Your task to perform on an android device: When is my next appointment? Image 0: 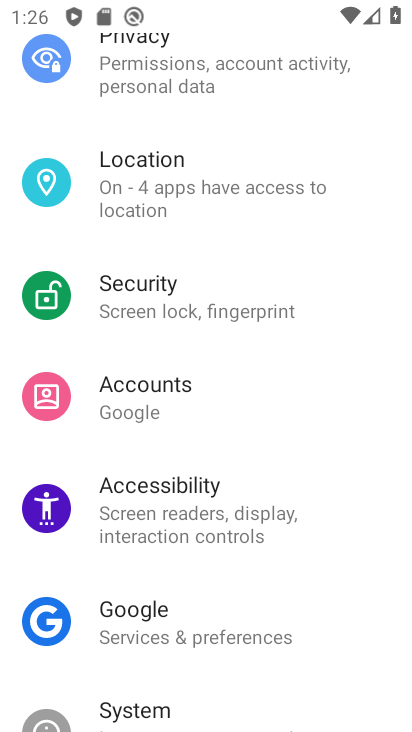
Step 0: press home button
Your task to perform on an android device: When is my next appointment? Image 1: 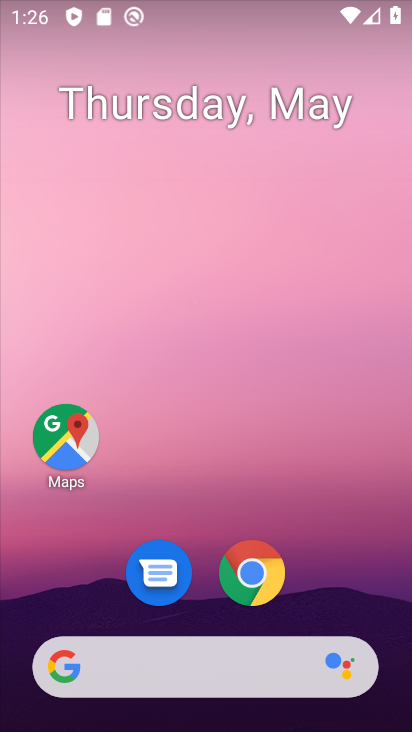
Step 1: drag from (297, 518) to (382, 104)
Your task to perform on an android device: When is my next appointment? Image 2: 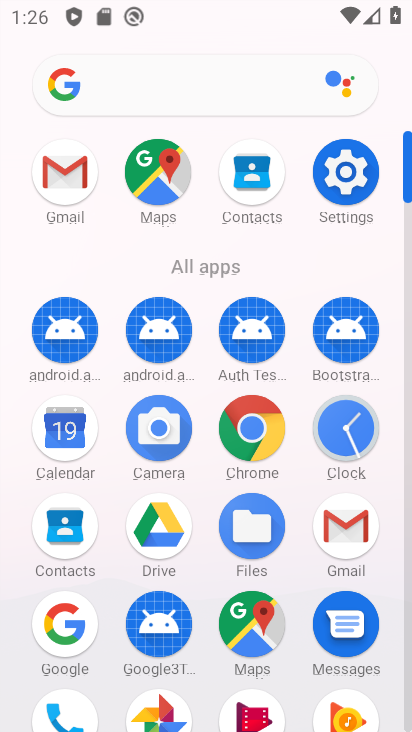
Step 2: click (61, 440)
Your task to perform on an android device: When is my next appointment? Image 3: 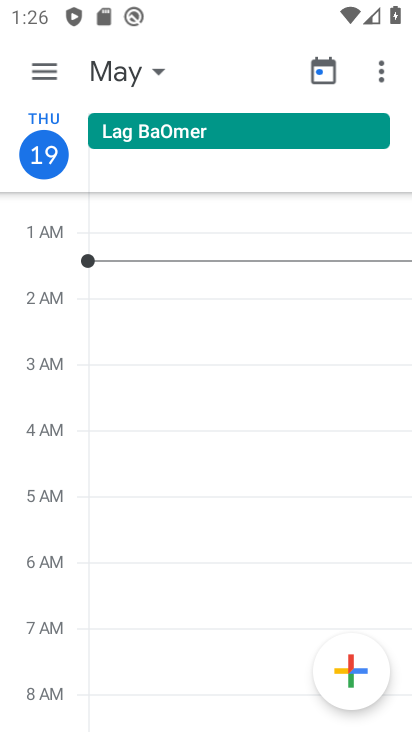
Step 3: click (147, 65)
Your task to perform on an android device: When is my next appointment? Image 4: 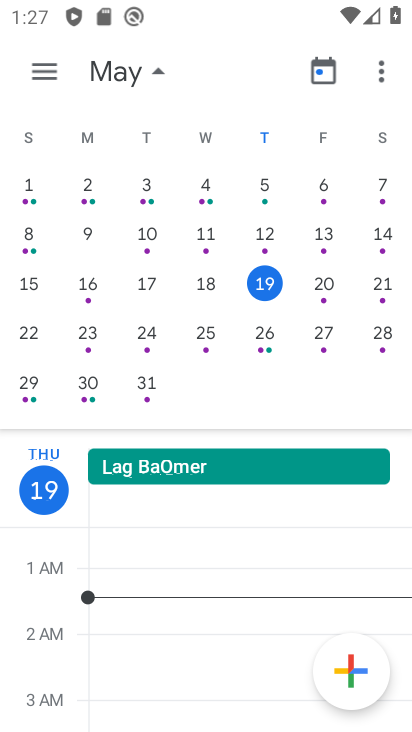
Step 4: click (164, 55)
Your task to perform on an android device: When is my next appointment? Image 5: 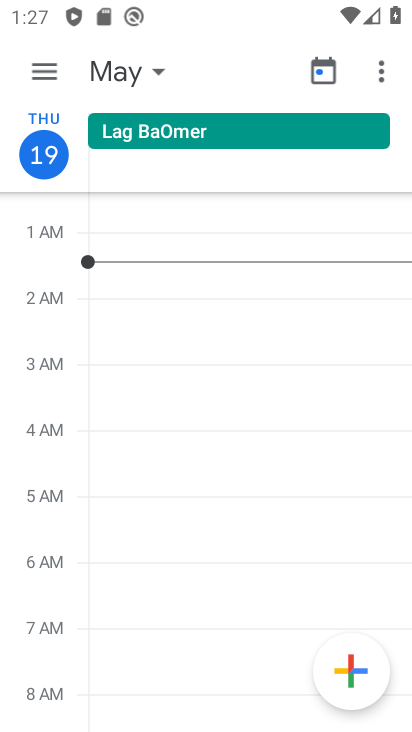
Step 5: click (28, 71)
Your task to perform on an android device: When is my next appointment? Image 6: 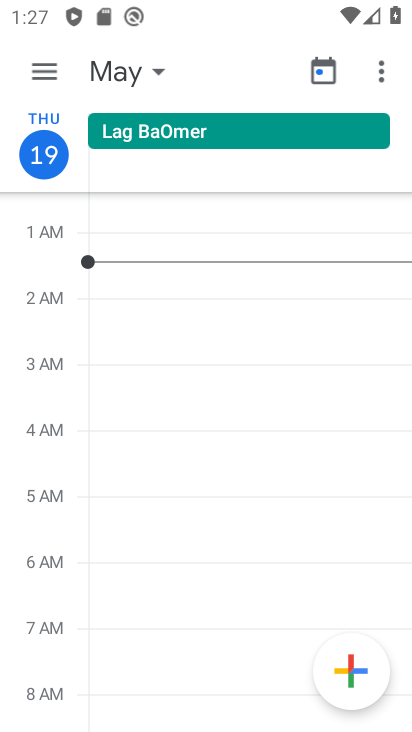
Step 6: click (40, 64)
Your task to perform on an android device: When is my next appointment? Image 7: 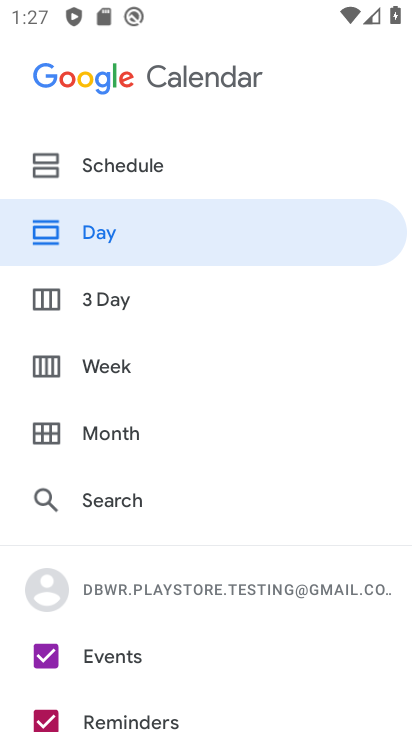
Step 7: click (77, 161)
Your task to perform on an android device: When is my next appointment? Image 8: 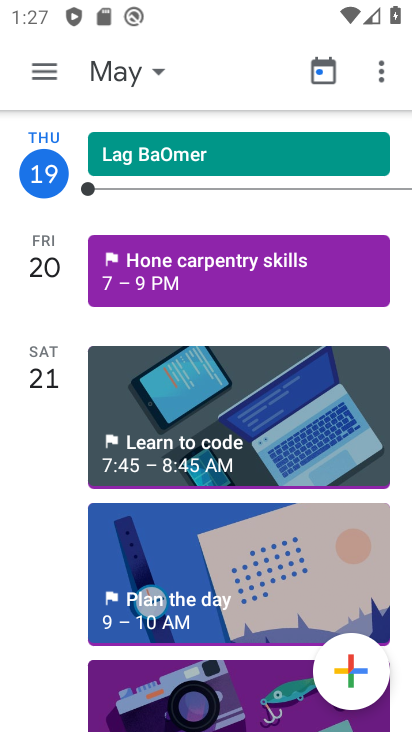
Step 8: task complete